Your task to perform on an android device: set an alarm Image 0: 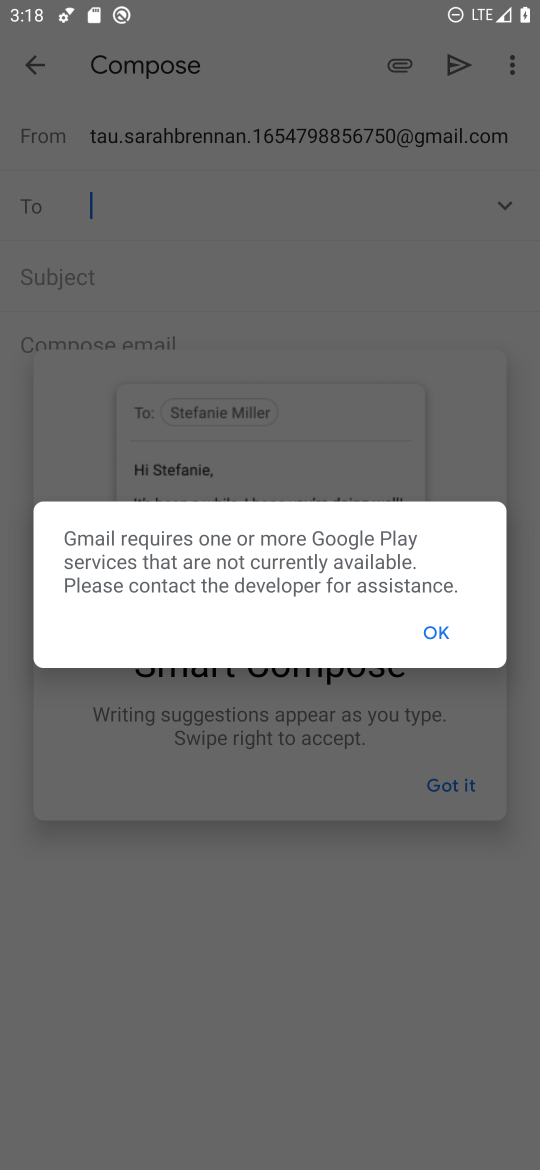
Step 0: click (459, 780)
Your task to perform on an android device: set an alarm Image 1: 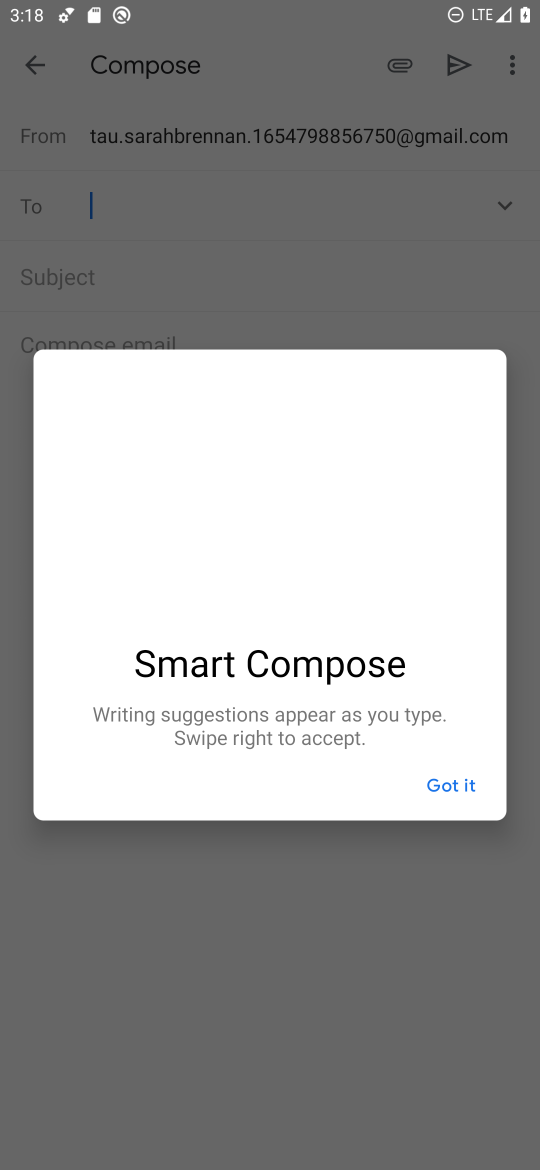
Step 1: click (441, 641)
Your task to perform on an android device: set an alarm Image 2: 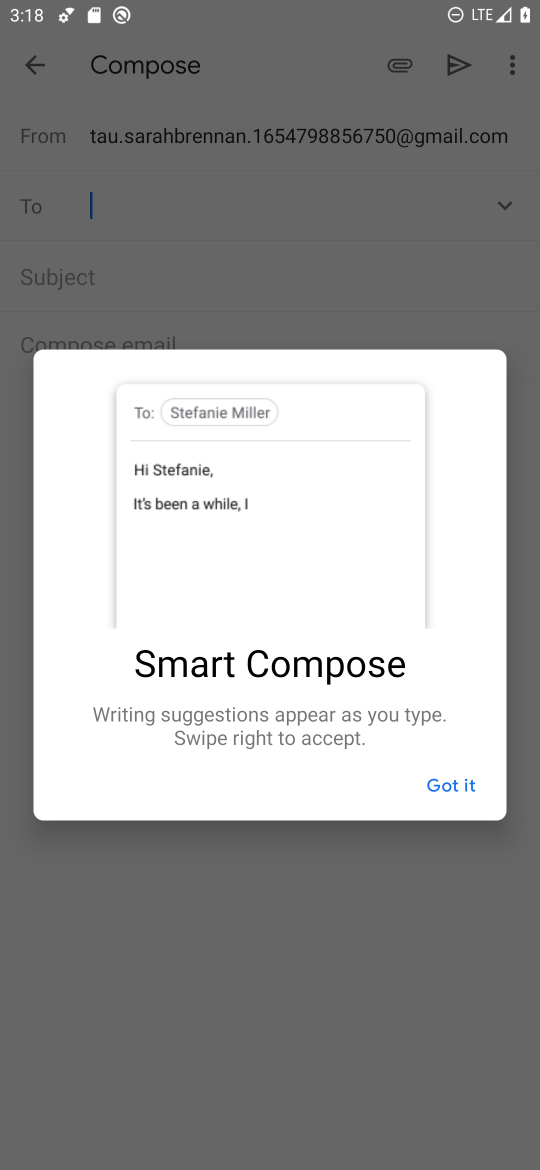
Step 2: click (449, 786)
Your task to perform on an android device: set an alarm Image 3: 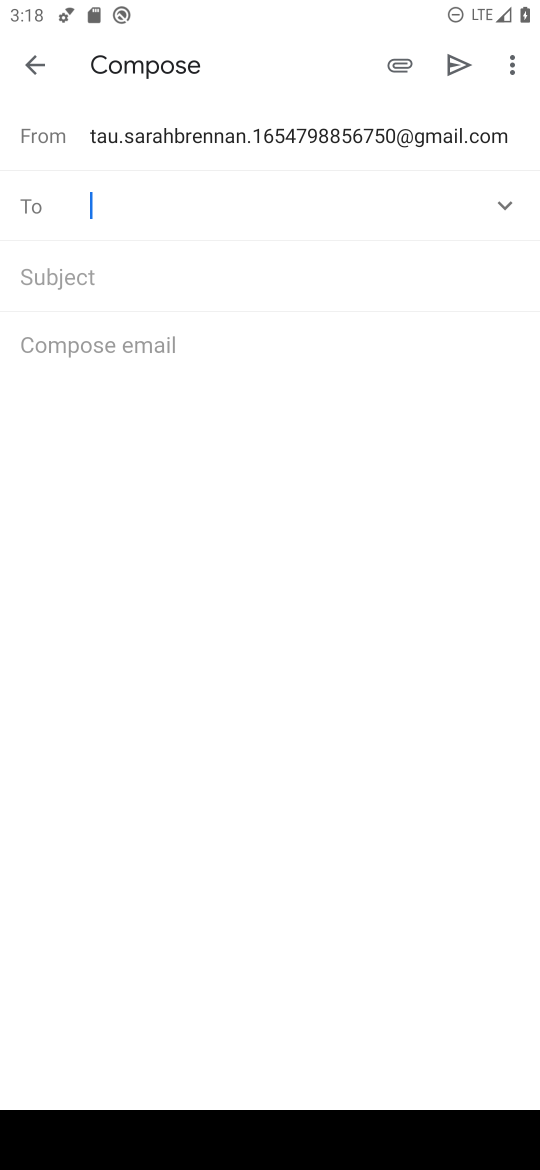
Step 3: press home button
Your task to perform on an android device: set an alarm Image 4: 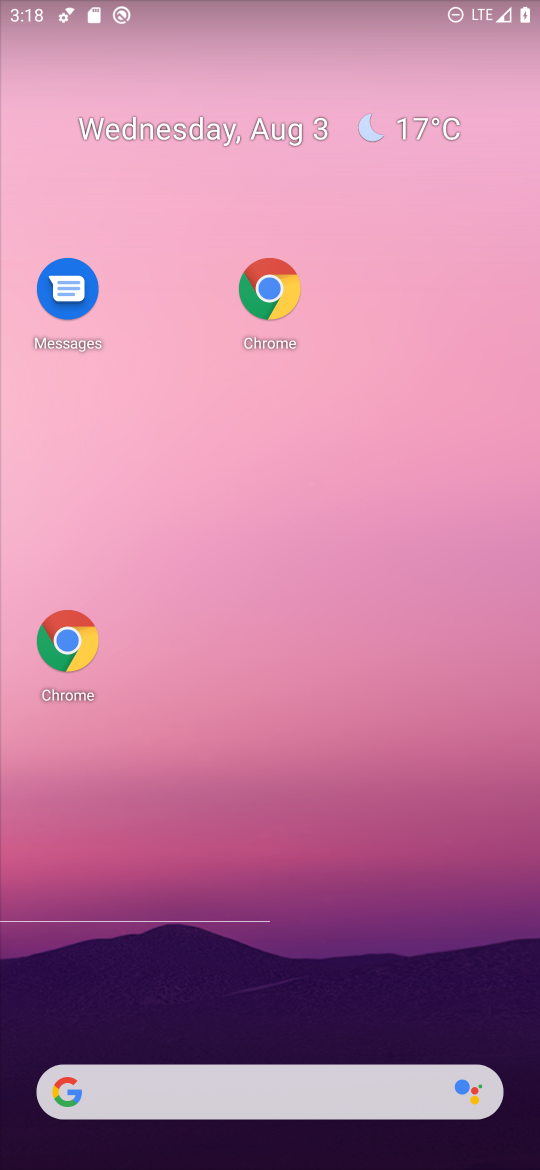
Step 4: drag from (303, 1021) to (252, 139)
Your task to perform on an android device: set an alarm Image 5: 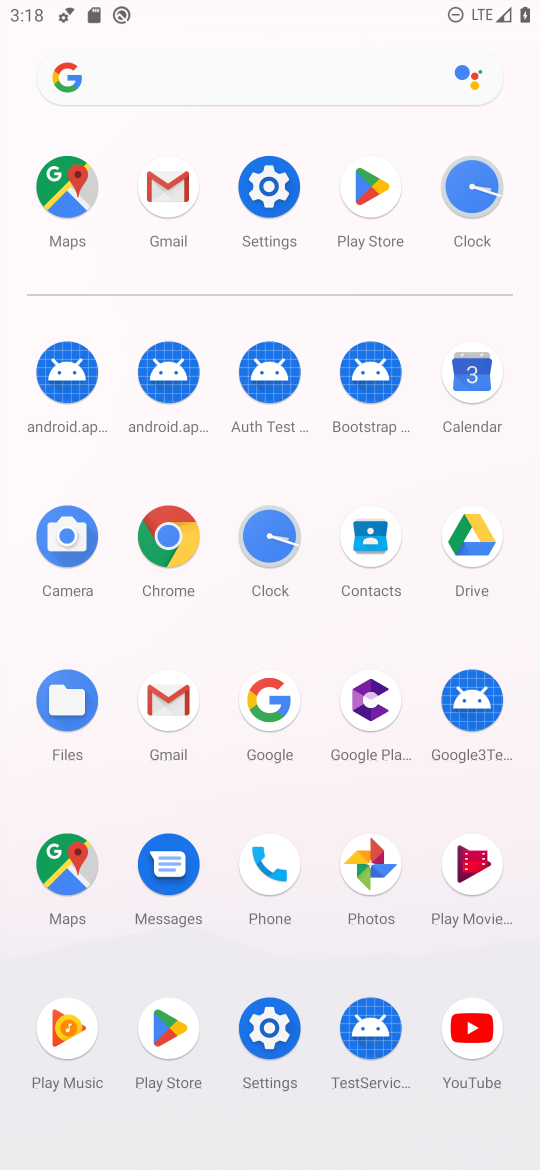
Step 5: click (287, 517)
Your task to perform on an android device: set an alarm Image 6: 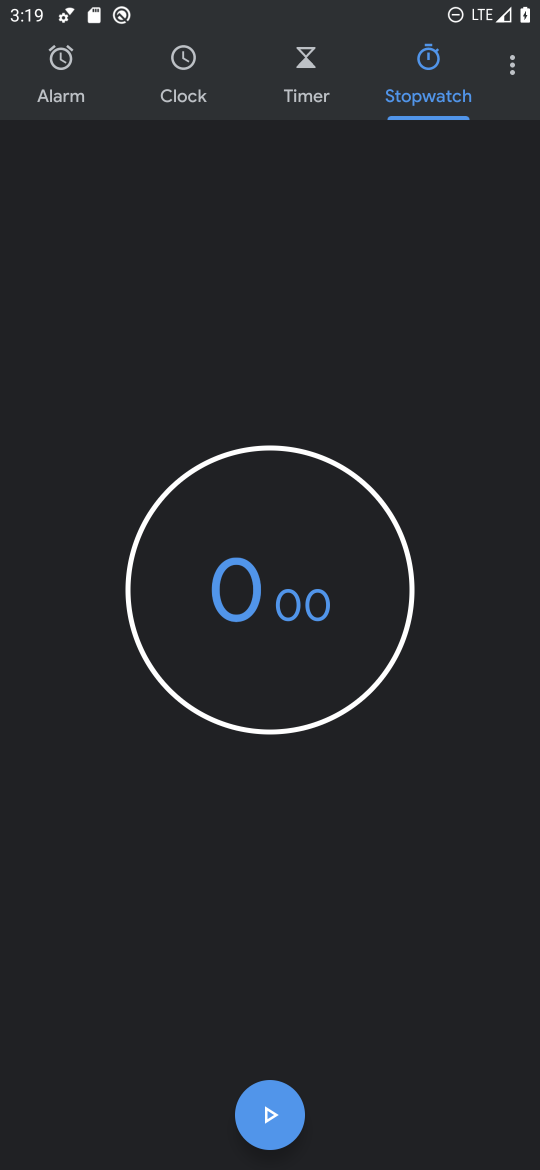
Step 6: click (44, 81)
Your task to perform on an android device: set an alarm Image 7: 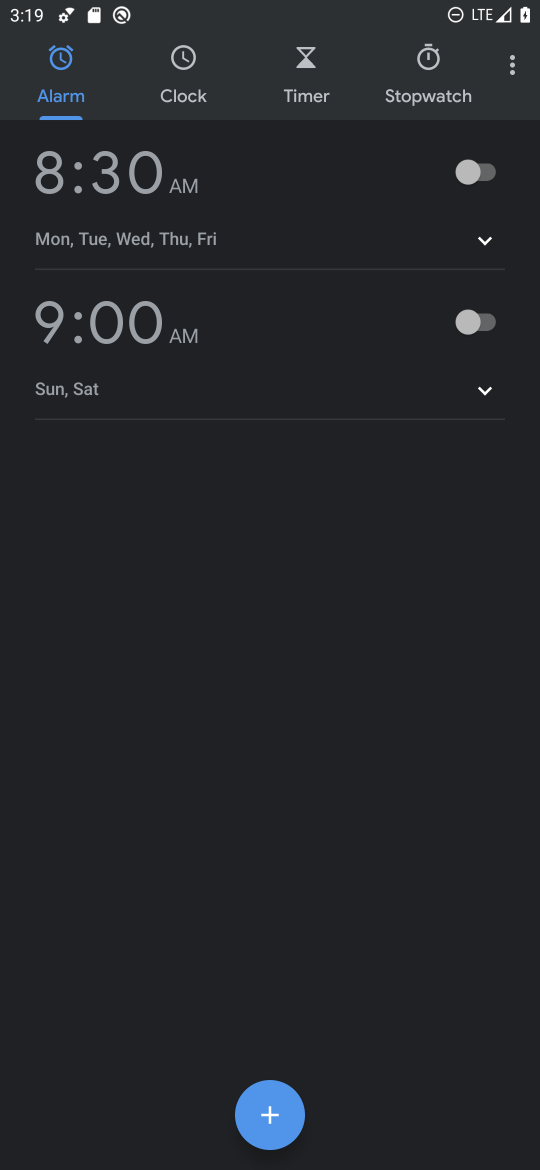
Step 7: click (444, 162)
Your task to perform on an android device: set an alarm Image 8: 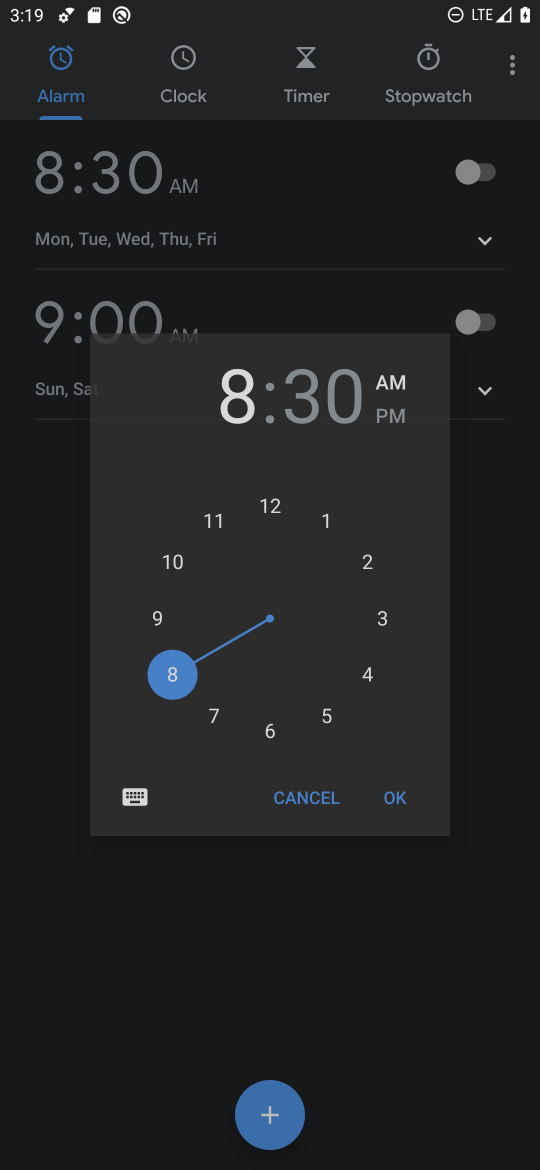
Step 8: task complete